Your task to perform on an android device: Open the web browser Image 0: 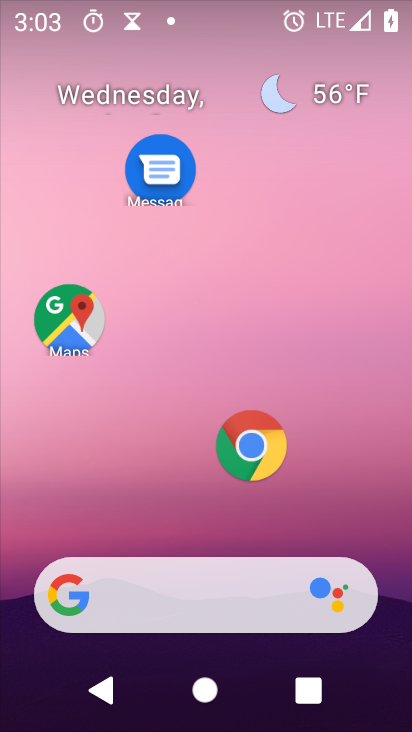
Step 0: drag from (167, 519) to (168, 122)
Your task to perform on an android device: Open the web browser Image 1: 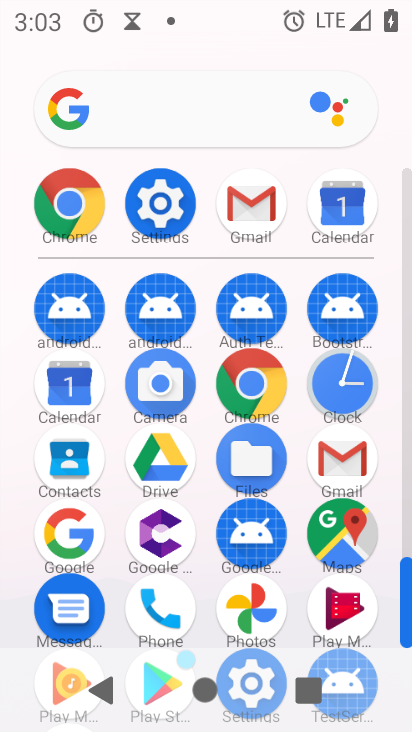
Step 1: drag from (209, 271) to (207, 110)
Your task to perform on an android device: Open the web browser Image 2: 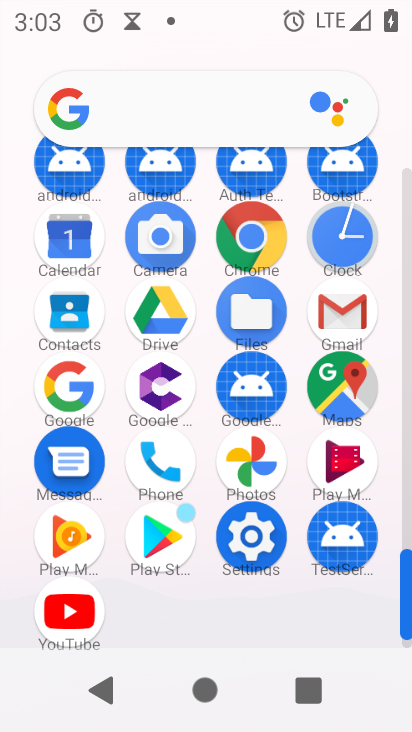
Step 2: click (259, 254)
Your task to perform on an android device: Open the web browser Image 3: 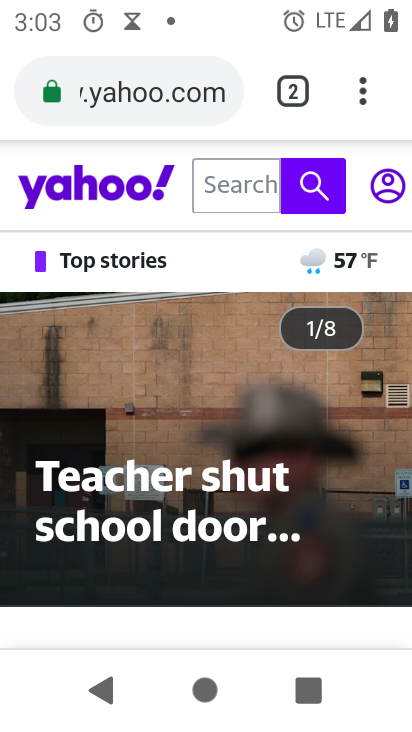
Step 3: task complete